Your task to perform on an android device: toggle translation in the chrome app Image 0: 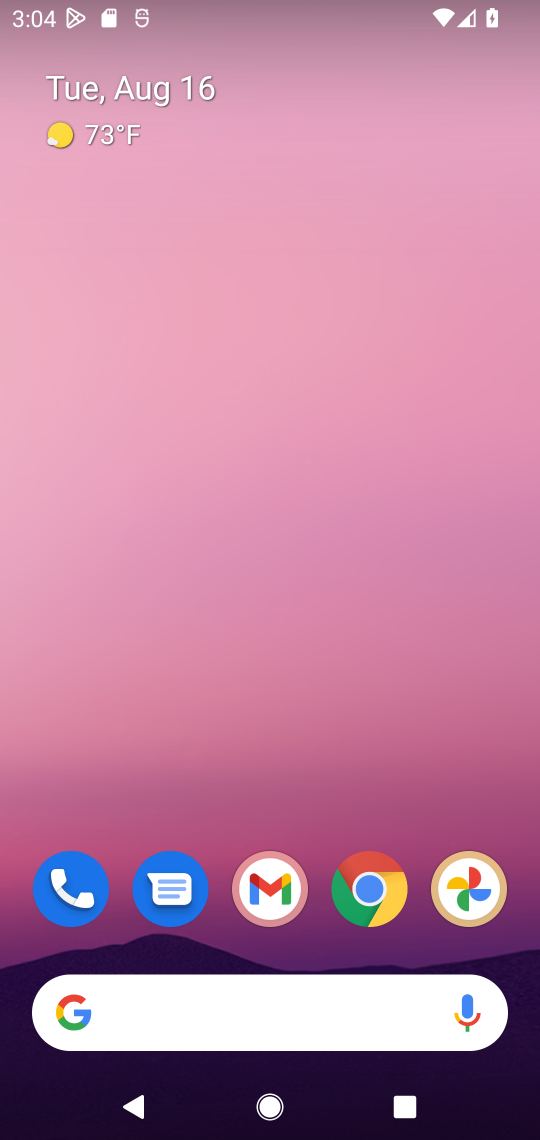
Step 0: click (366, 883)
Your task to perform on an android device: toggle translation in the chrome app Image 1: 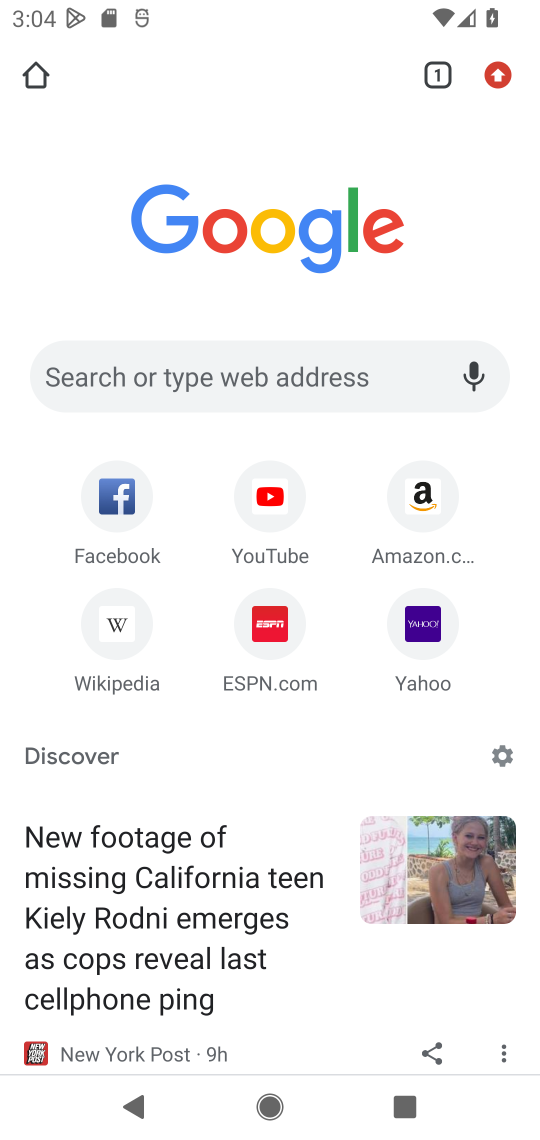
Step 1: click (494, 68)
Your task to perform on an android device: toggle translation in the chrome app Image 2: 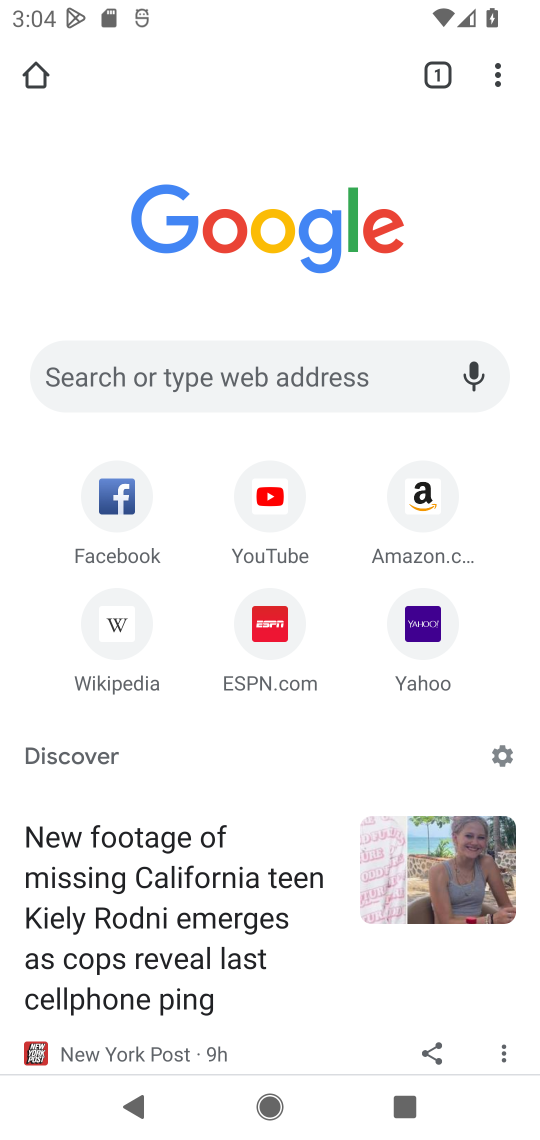
Step 2: click (498, 71)
Your task to perform on an android device: toggle translation in the chrome app Image 3: 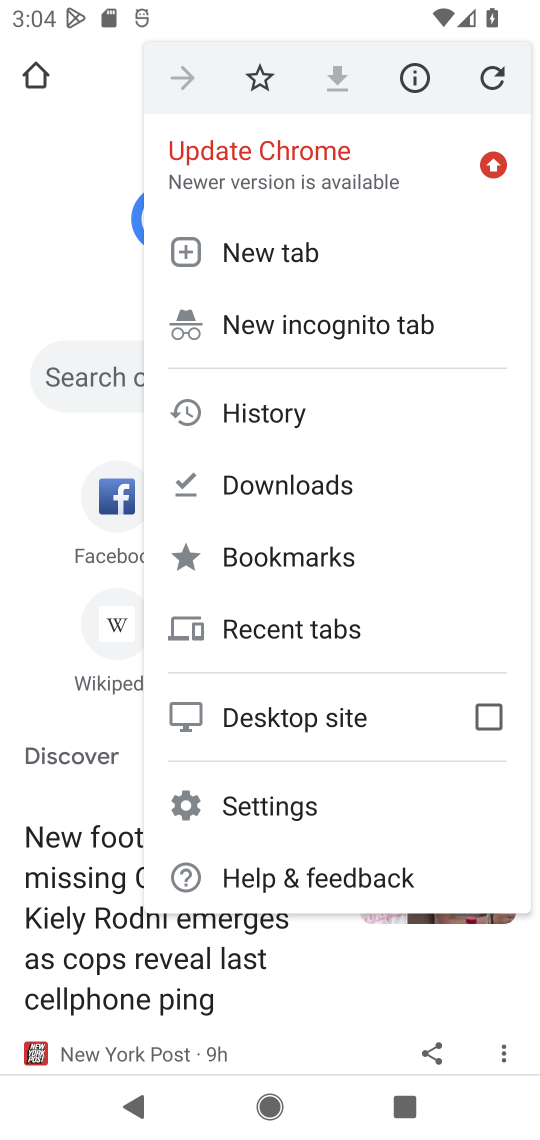
Step 3: task complete